Your task to perform on an android device: What's on my calendar tomorrow? Image 0: 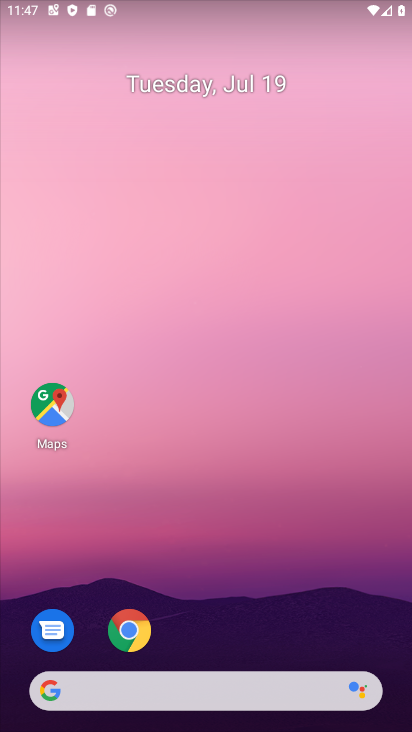
Step 0: drag from (199, 567) to (123, 211)
Your task to perform on an android device: What's on my calendar tomorrow? Image 1: 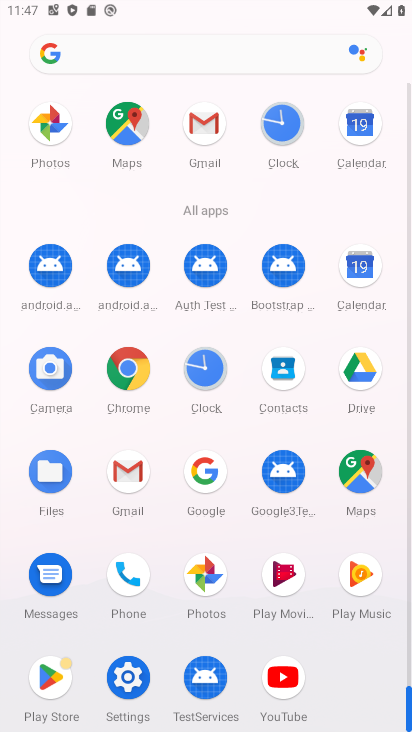
Step 1: click (350, 281)
Your task to perform on an android device: What's on my calendar tomorrow? Image 2: 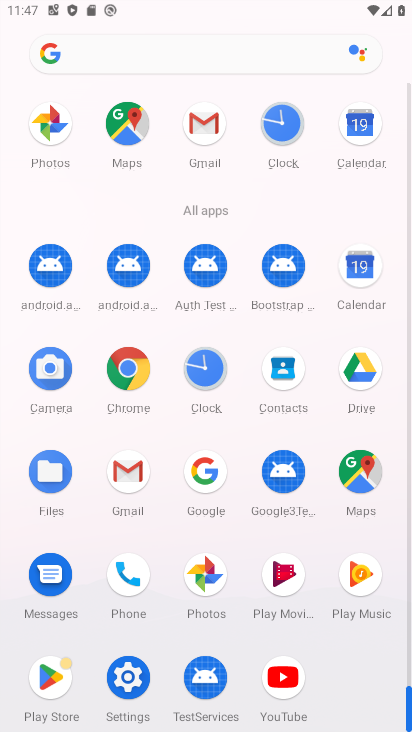
Step 2: click (352, 273)
Your task to perform on an android device: What's on my calendar tomorrow? Image 3: 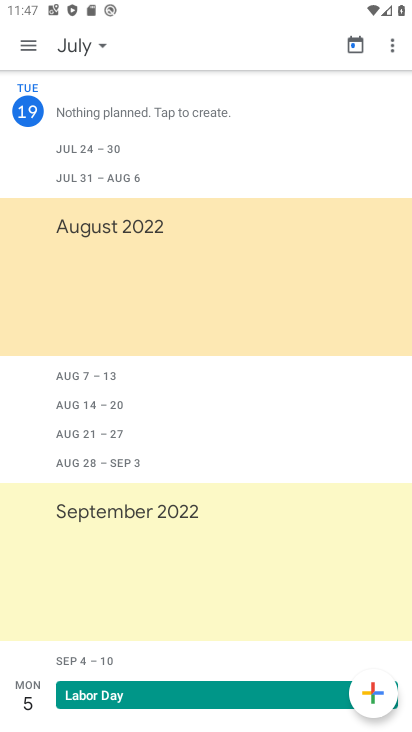
Step 3: click (99, 52)
Your task to perform on an android device: What's on my calendar tomorrow? Image 4: 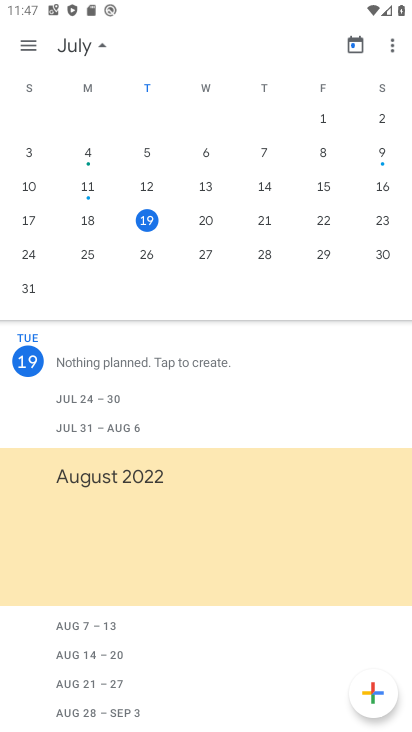
Step 4: click (258, 219)
Your task to perform on an android device: What's on my calendar tomorrow? Image 5: 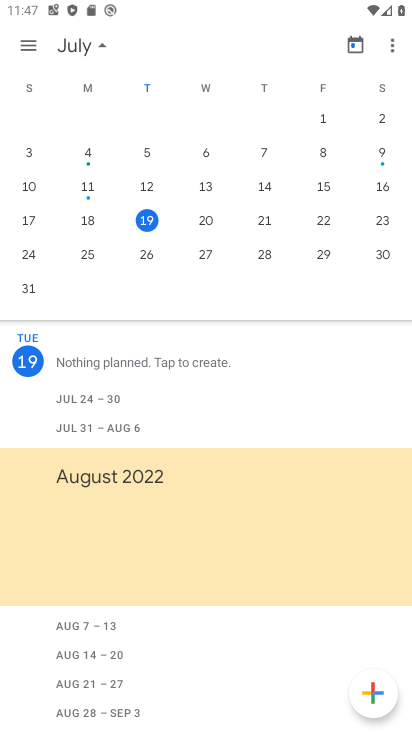
Step 5: click (265, 219)
Your task to perform on an android device: What's on my calendar tomorrow? Image 6: 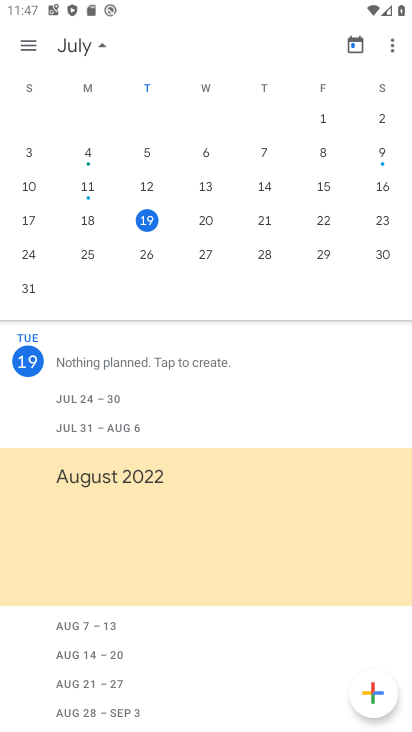
Step 6: click (267, 218)
Your task to perform on an android device: What's on my calendar tomorrow? Image 7: 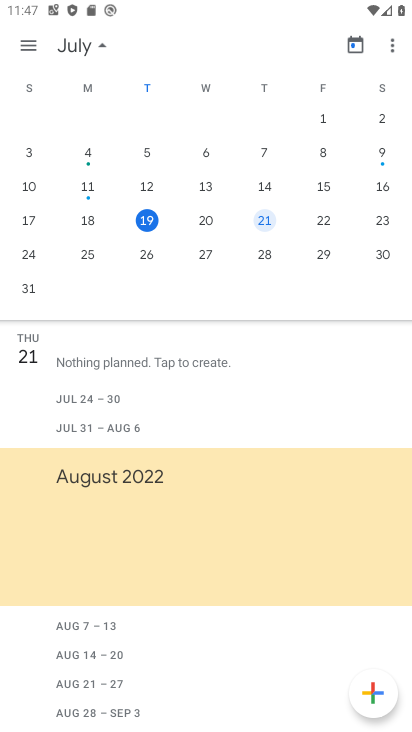
Step 7: click (269, 218)
Your task to perform on an android device: What's on my calendar tomorrow? Image 8: 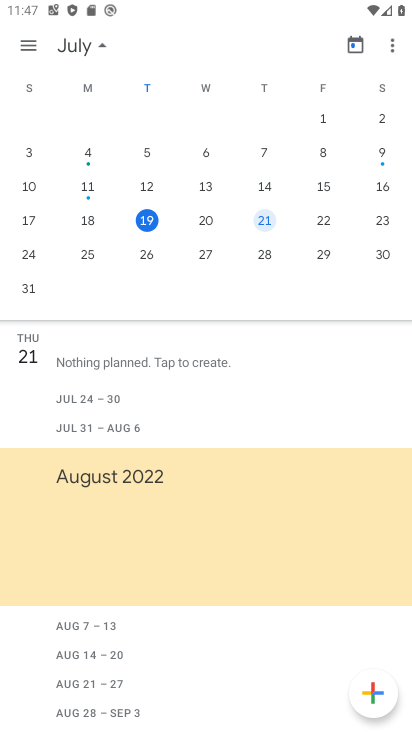
Step 8: click (269, 218)
Your task to perform on an android device: What's on my calendar tomorrow? Image 9: 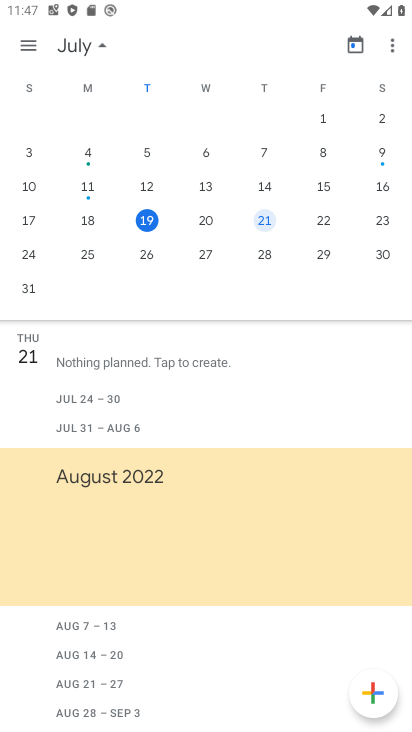
Step 9: click (269, 218)
Your task to perform on an android device: What's on my calendar tomorrow? Image 10: 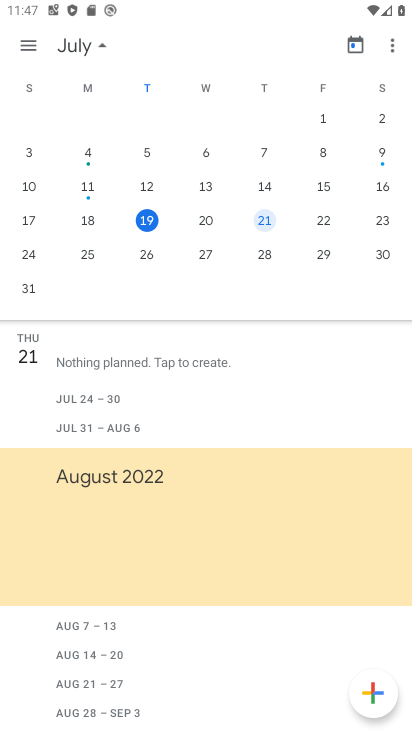
Step 10: task complete